Your task to perform on an android device: set an alarm Image 0: 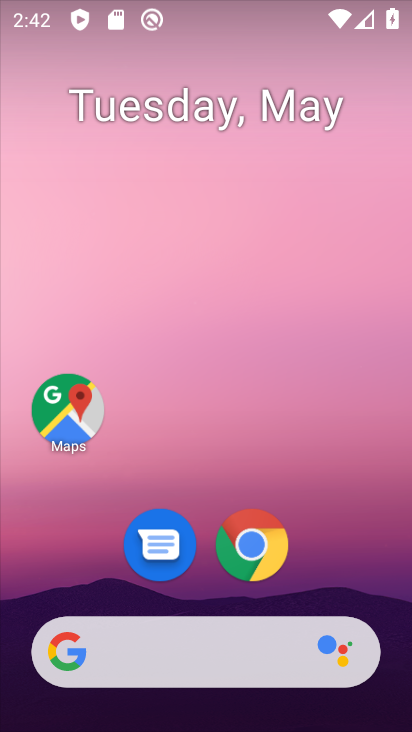
Step 0: drag from (215, 659) to (194, 21)
Your task to perform on an android device: set an alarm Image 1: 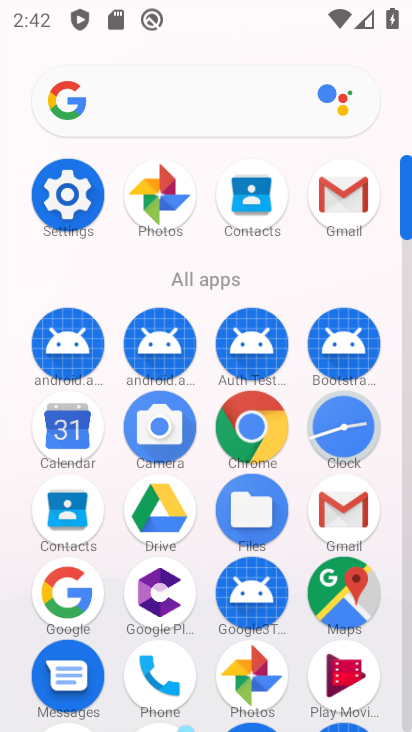
Step 1: click (350, 413)
Your task to perform on an android device: set an alarm Image 2: 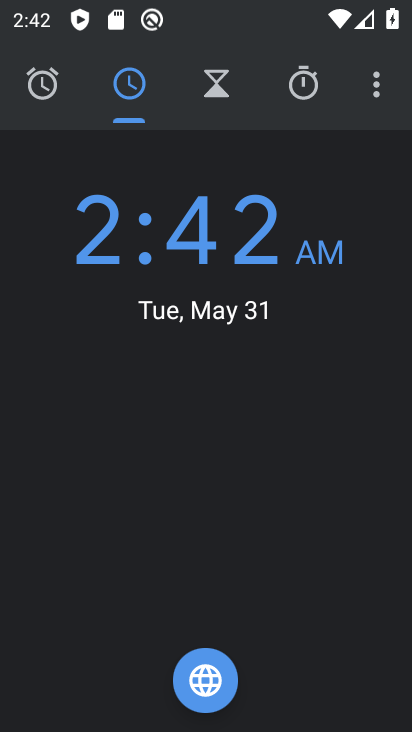
Step 2: click (49, 98)
Your task to perform on an android device: set an alarm Image 3: 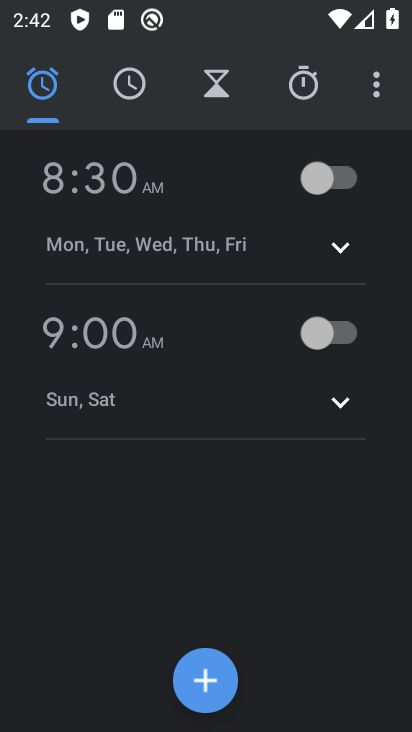
Step 3: click (215, 675)
Your task to perform on an android device: set an alarm Image 4: 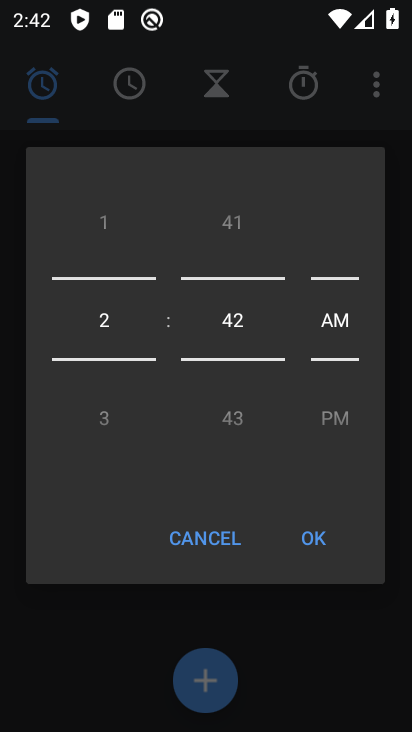
Step 4: drag from (116, 407) to (26, 2)
Your task to perform on an android device: set an alarm Image 5: 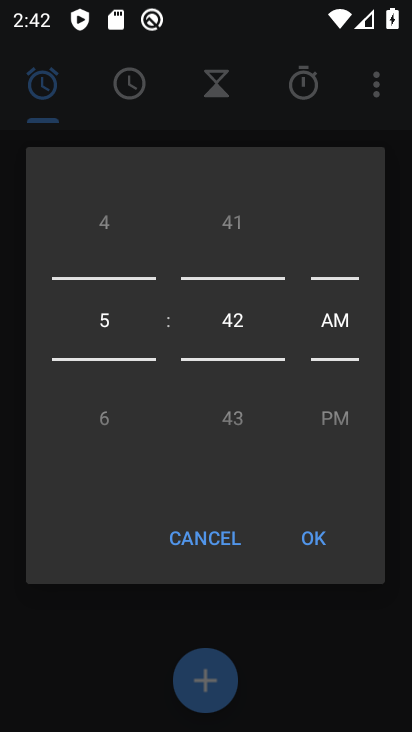
Step 5: click (323, 523)
Your task to perform on an android device: set an alarm Image 6: 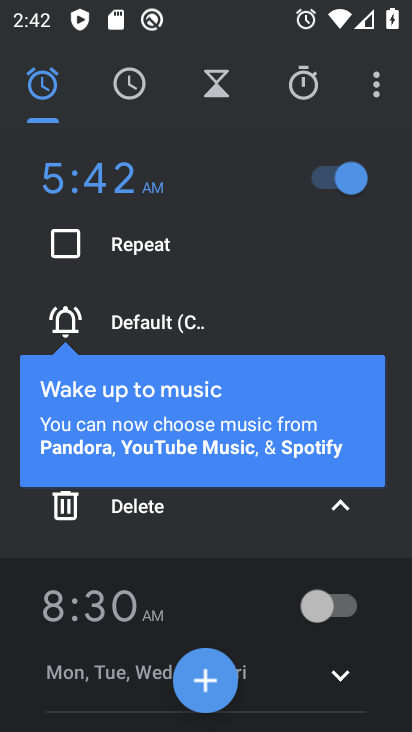
Step 6: task complete